Your task to perform on an android device: Open maps Image 0: 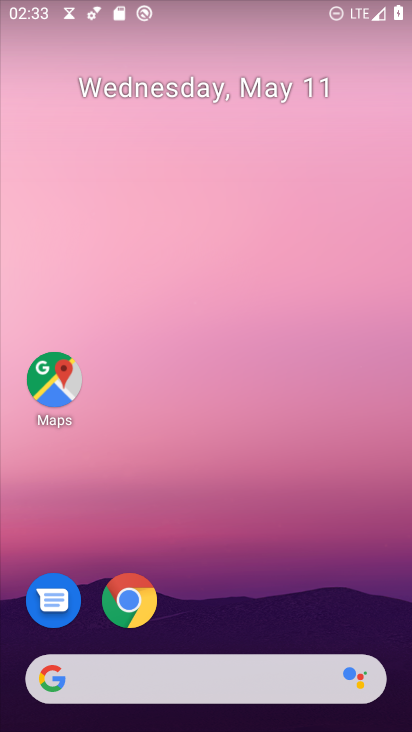
Step 0: click (49, 377)
Your task to perform on an android device: Open maps Image 1: 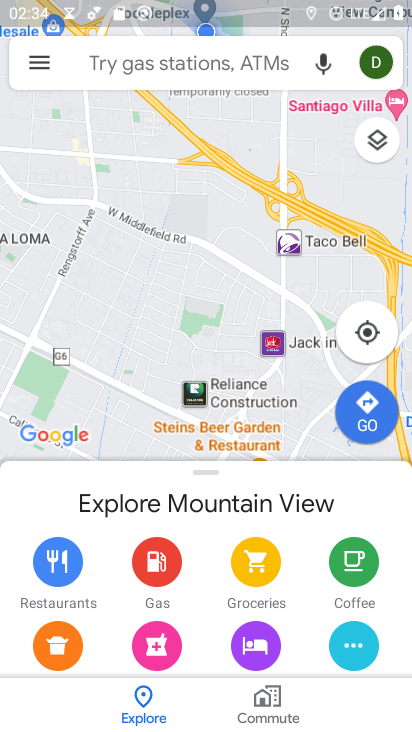
Step 1: task complete